Your task to perform on an android device: Open Android settings Image 0: 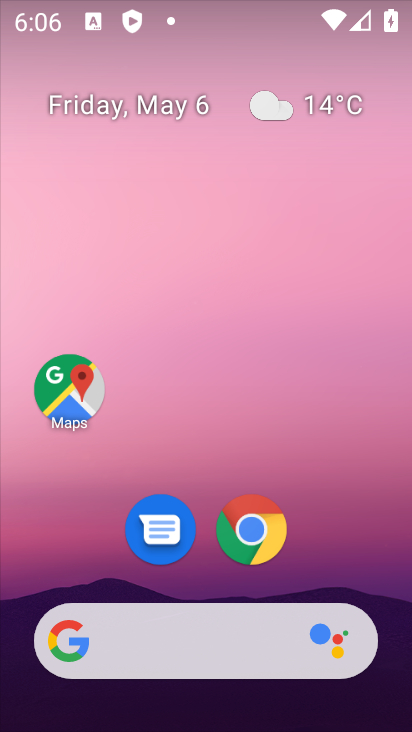
Step 0: drag from (346, 487) to (197, 40)
Your task to perform on an android device: Open Android settings Image 1: 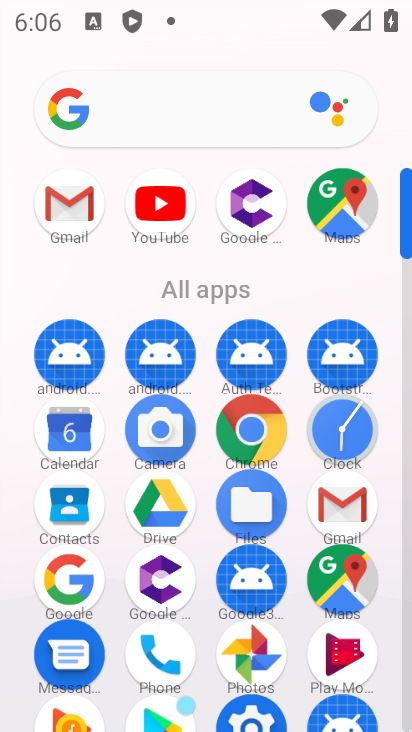
Step 1: click (246, 710)
Your task to perform on an android device: Open Android settings Image 2: 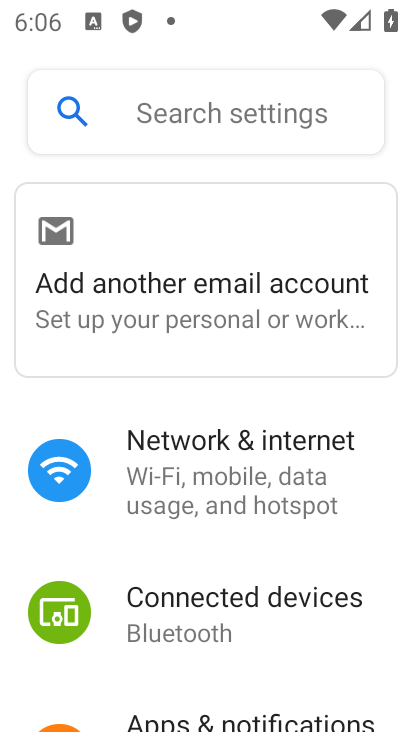
Step 2: drag from (253, 568) to (189, 94)
Your task to perform on an android device: Open Android settings Image 3: 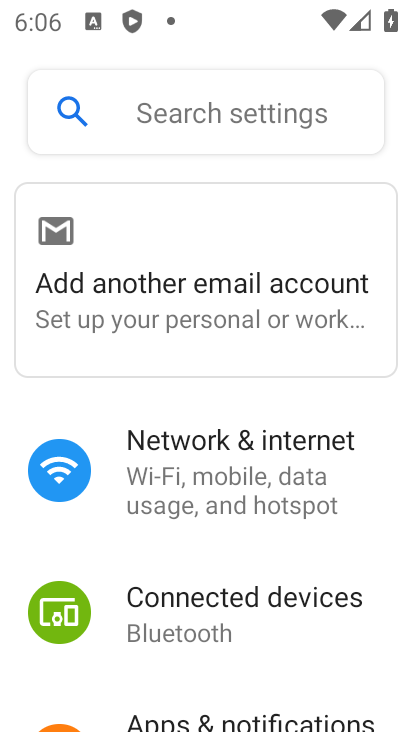
Step 3: drag from (212, 666) to (223, 149)
Your task to perform on an android device: Open Android settings Image 4: 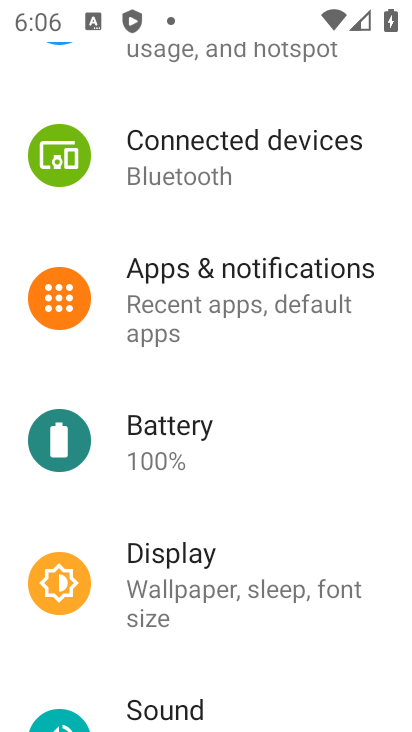
Step 4: drag from (259, 477) to (243, 136)
Your task to perform on an android device: Open Android settings Image 5: 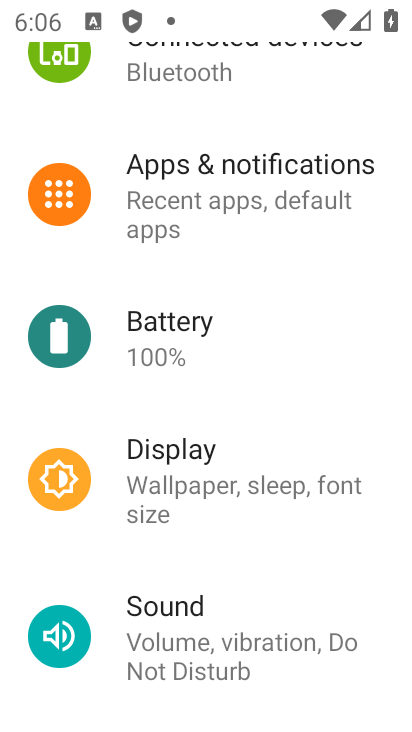
Step 5: drag from (244, 304) to (237, 182)
Your task to perform on an android device: Open Android settings Image 6: 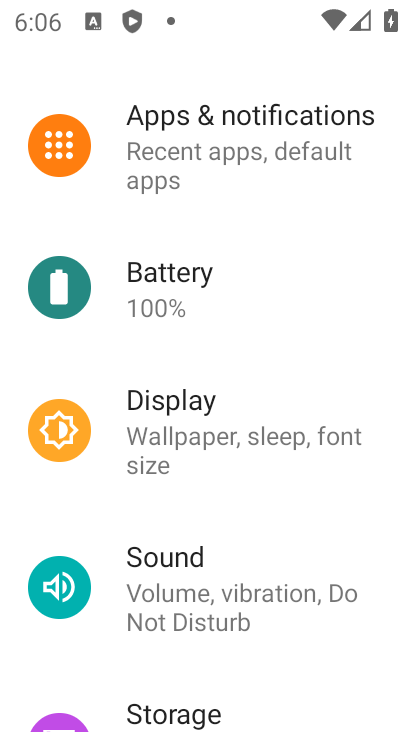
Step 6: drag from (238, 137) to (226, 86)
Your task to perform on an android device: Open Android settings Image 7: 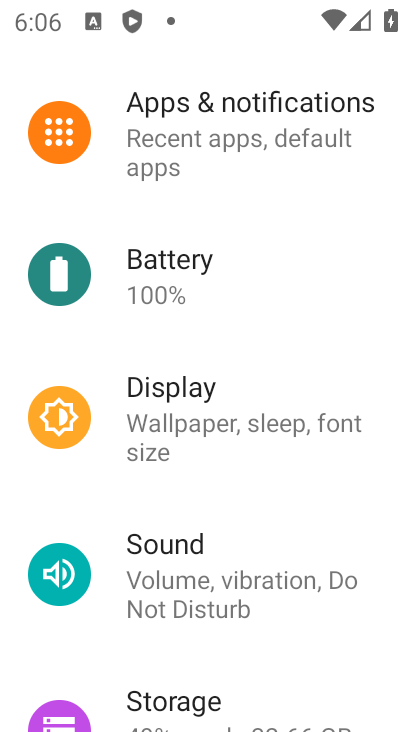
Step 7: drag from (235, 649) to (227, 169)
Your task to perform on an android device: Open Android settings Image 8: 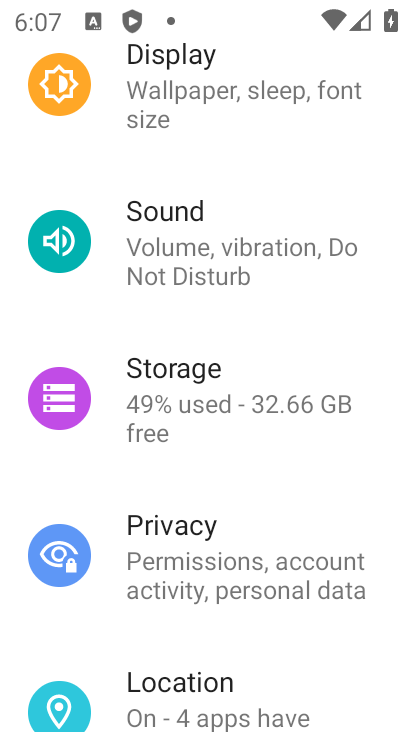
Step 8: drag from (247, 695) to (276, 236)
Your task to perform on an android device: Open Android settings Image 9: 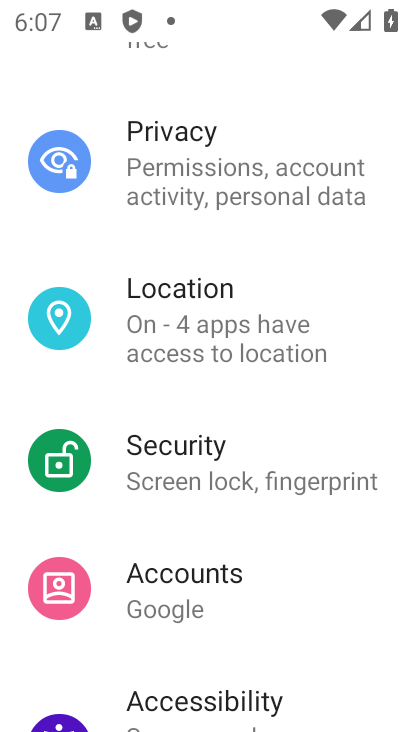
Step 9: drag from (233, 608) to (212, 116)
Your task to perform on an android device: Open Android settings Image 10: 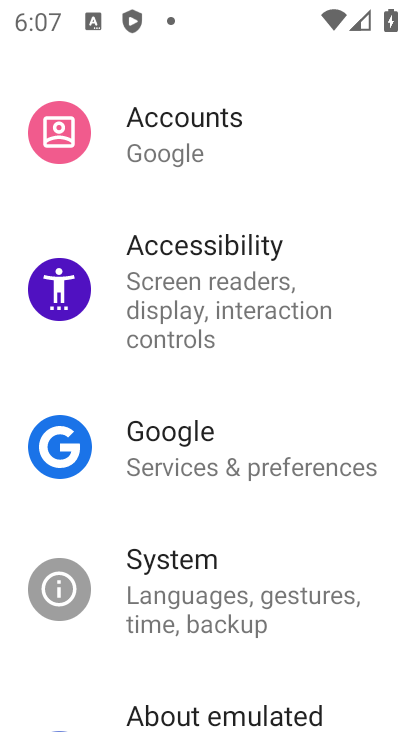
Step 10: drag from (242, 608) to (247, 304)
Your task to perform on an android device: Open Android settings Image 11: 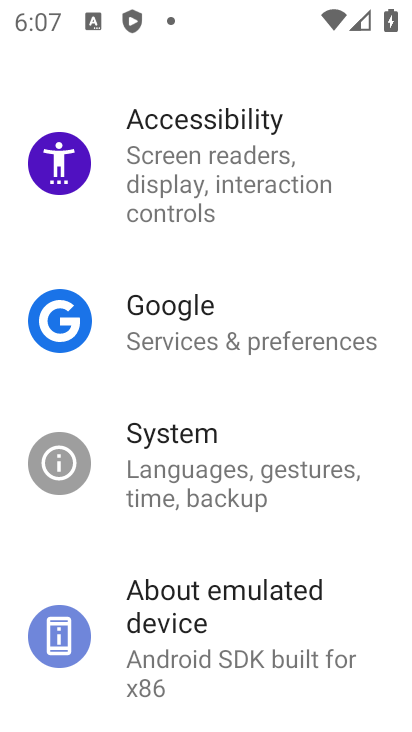
Step 11: click (208, 613)
Your task to perform on an android device: Open Android settings Image 12: 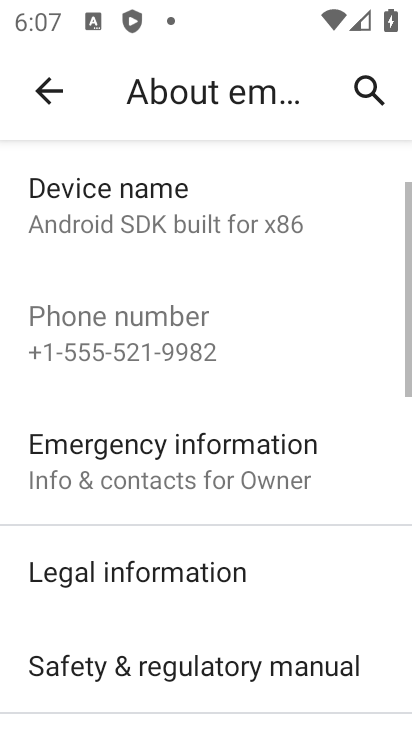
Step 12: drag from (170, 634) to (195, 153)
Your task to perform on an android device: Open Android settings Image 13: 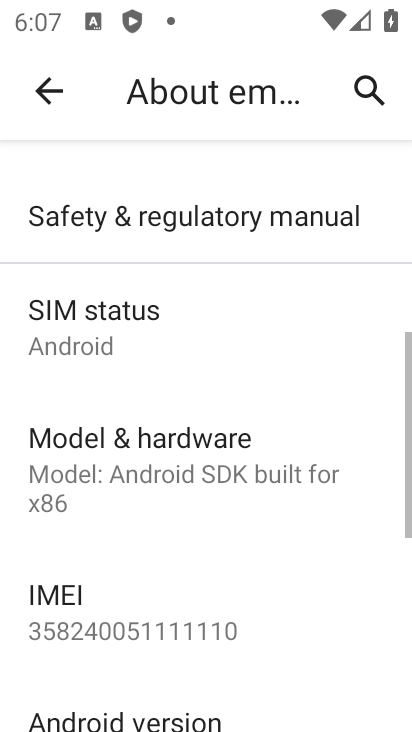
Step 13: click (163, 707)
Your task to perform on an android device: Open Android settings Image 14: 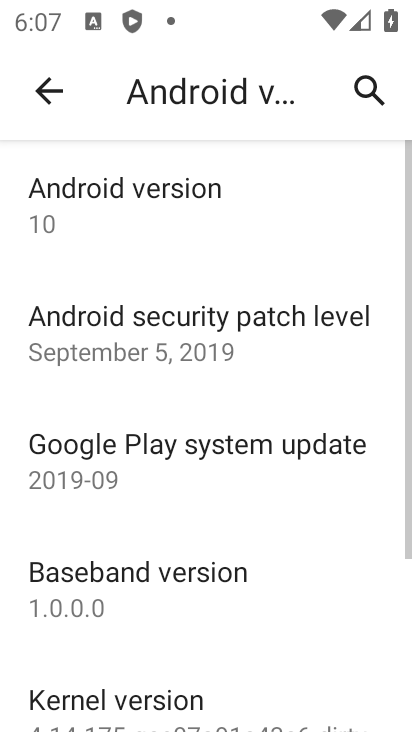
Step 14: click (119, 212)
Your task to perform on an android device: Open Android settings Image 15: 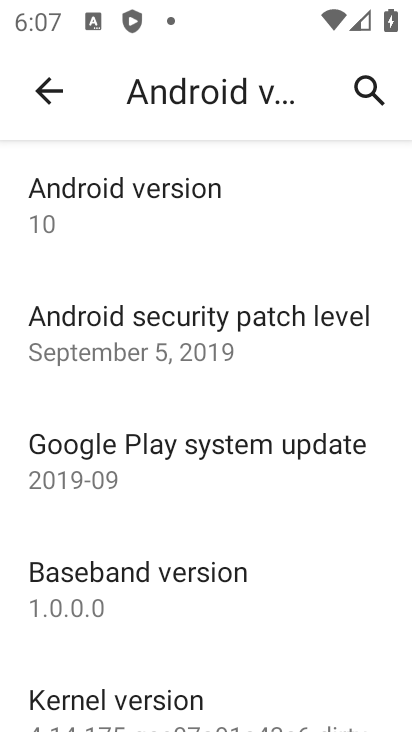
Step 15: task complete